Your task to perform on an android device: Go to Maps Image 0: 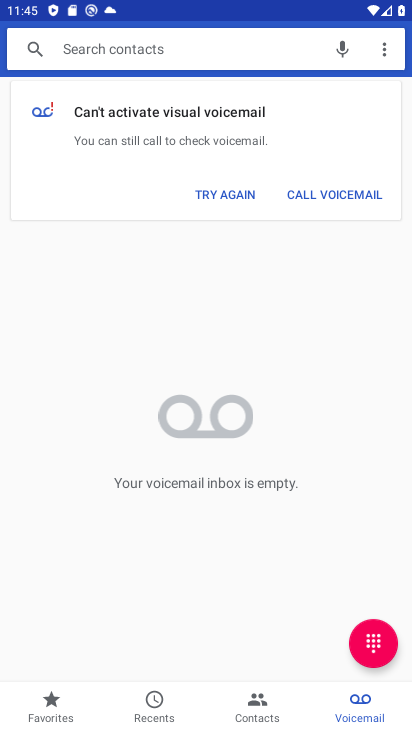
Step 0: press home button
Your task to perform on an android device: Go to Maps Image 1: 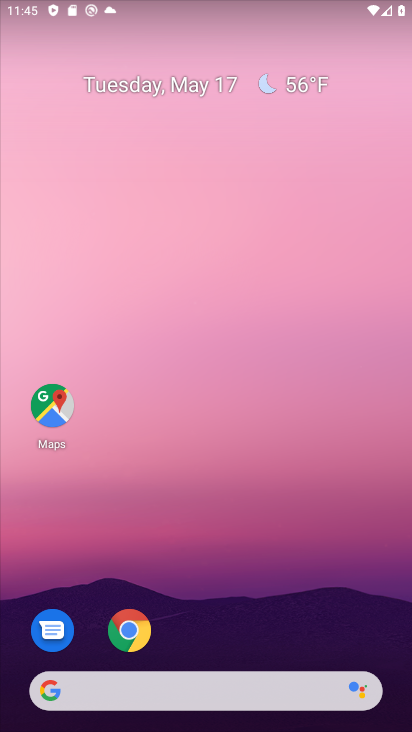
Step 1: drag from (205, 729) to (215, 173)
Your task to perform on an android device: Go to Maps Image 2: 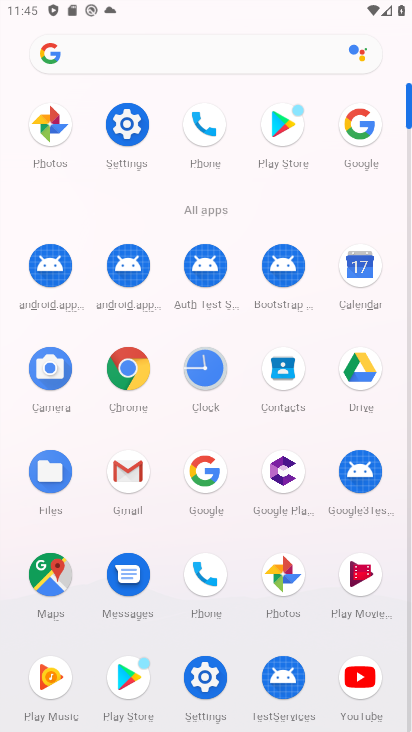
Step 2: click (46, 575)
Your task to perform on an android device: Go to Maps Image 3: 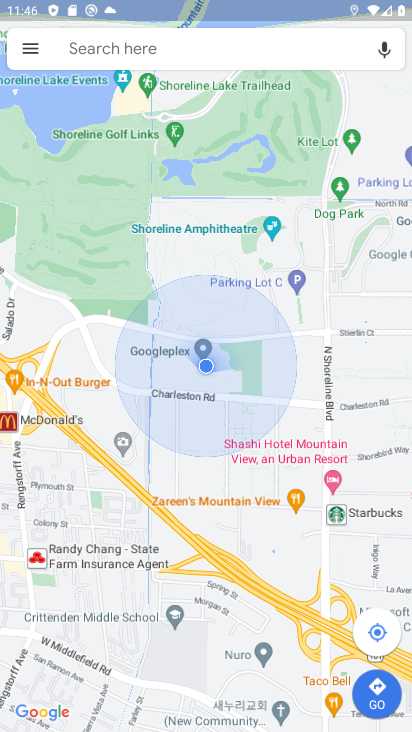
Step 3: task complete